Your task to perform on an android device: open app "Fetch Rewards" (install if not already installed) Image 0: 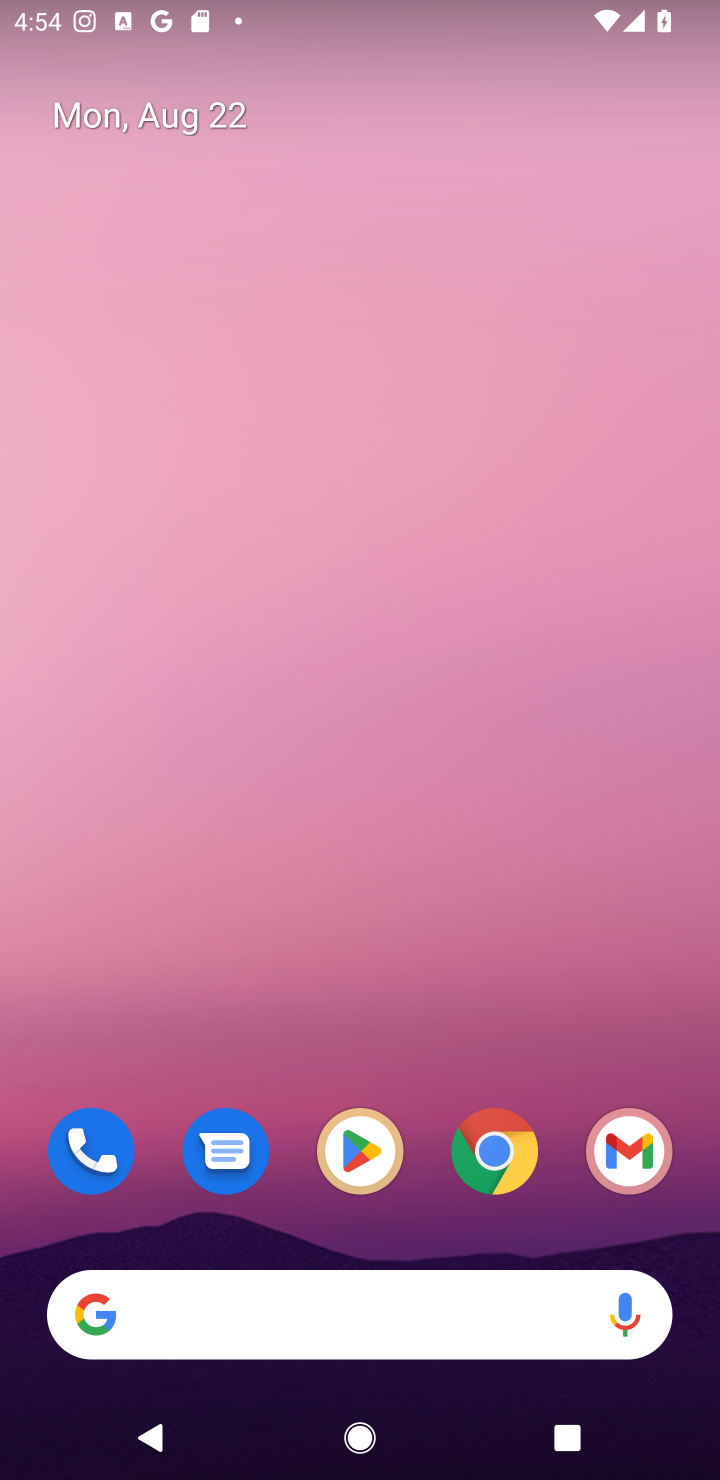
Step 0: press home button
Your task to perform on an android device: open app "Fetch Rewards" (install if not already installed) Image 1: 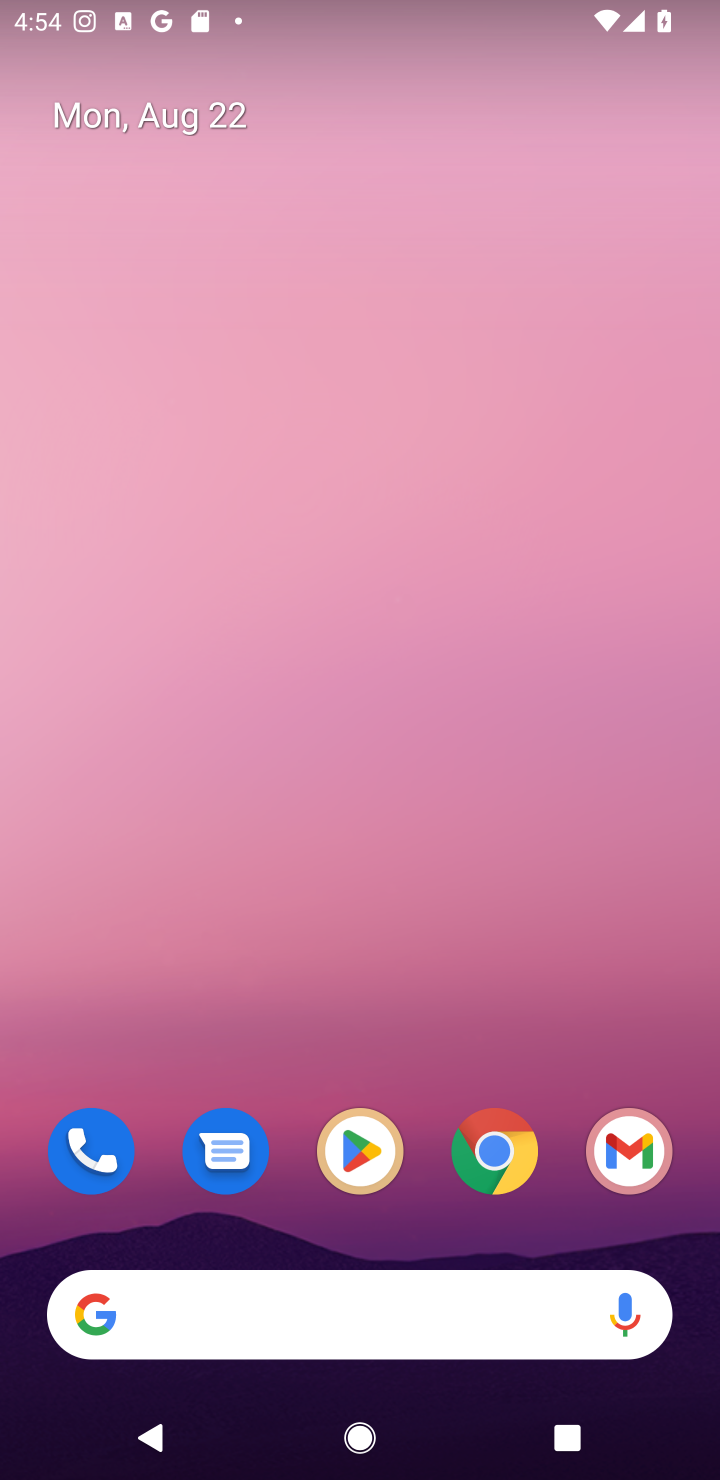
Step 1: click (350, 1142)
Your task to perform on an android device: open app "Fetch Rewards" (install if not already installed) Image 2: 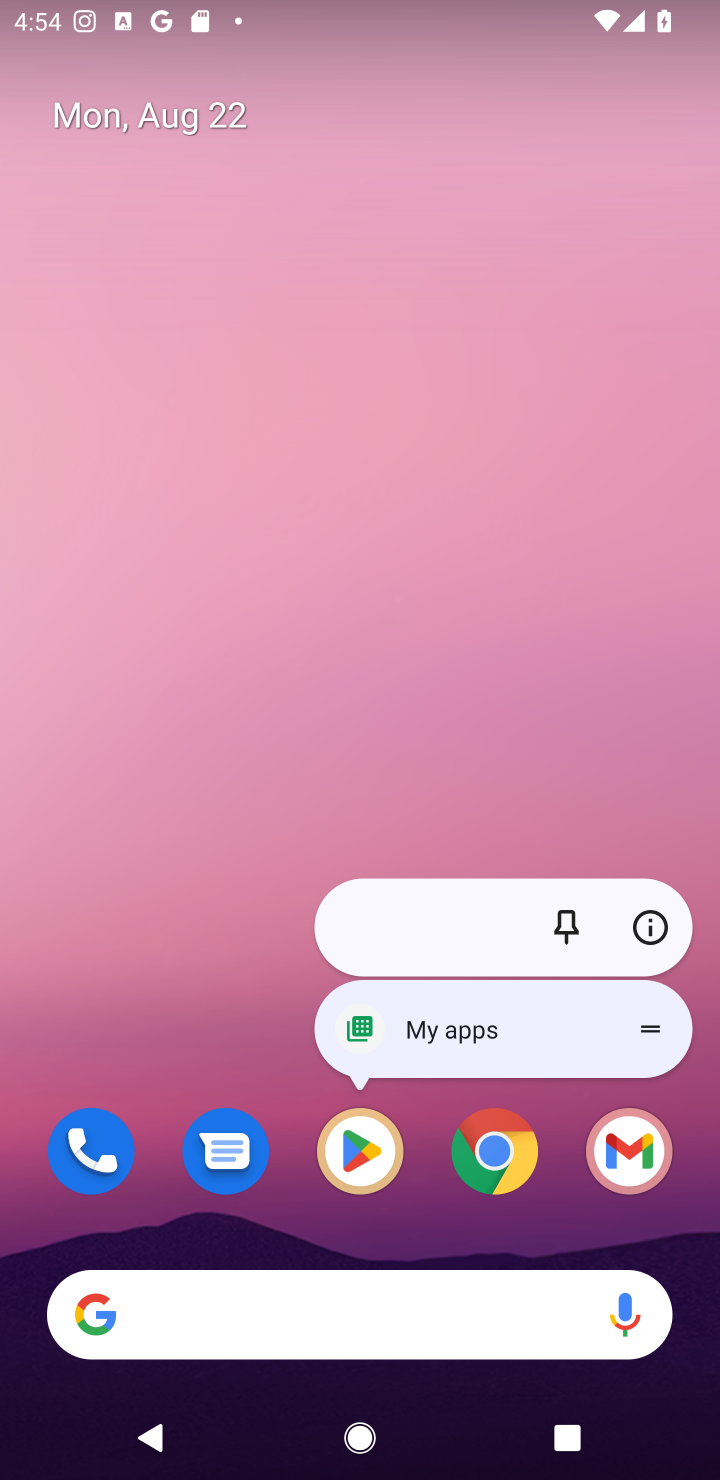
Step 2: click (351, 1149)
Your task to perform on an android device: open app "Fetch Rewards" (install if not already installed) Image 3: 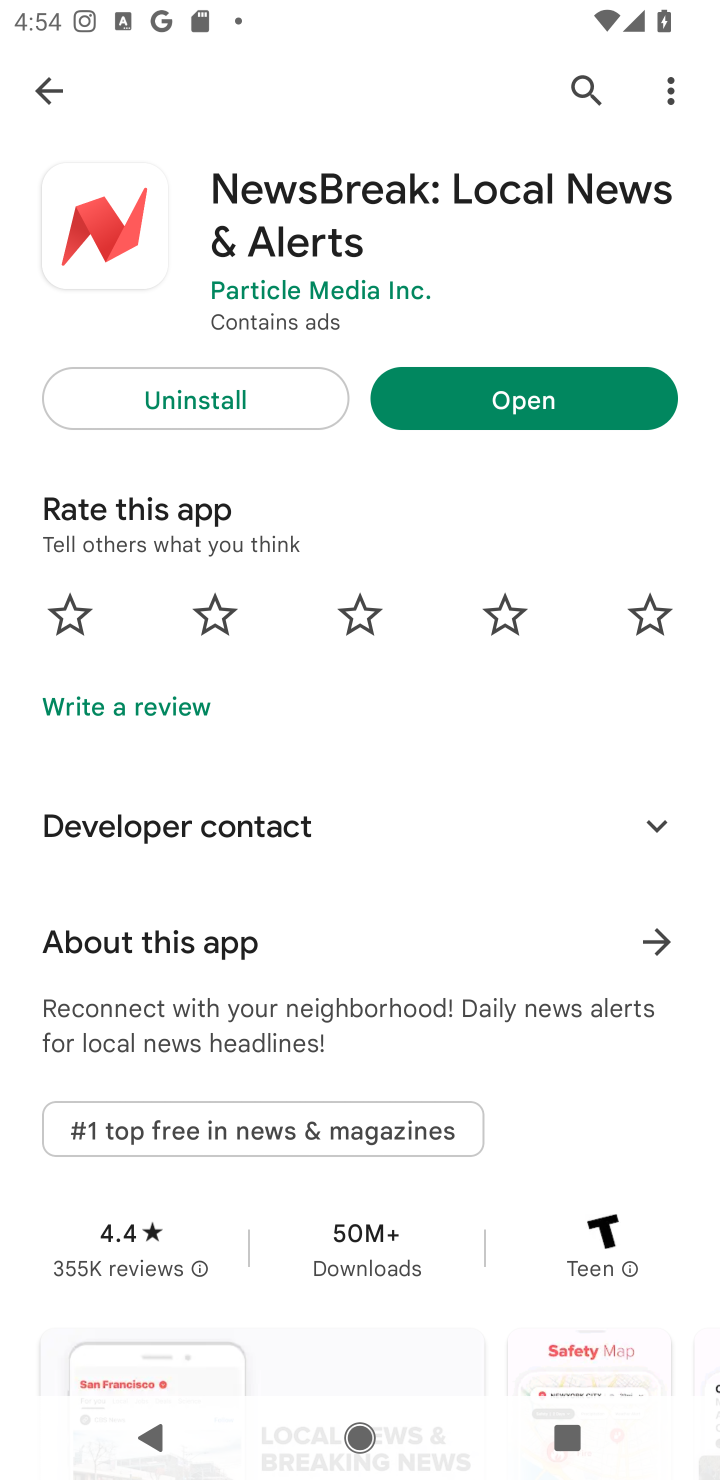
Step 3: click (577, 73)
Your task to perform on an android device: open app "Fetch Rewards" (install if not already installed) Image 4: 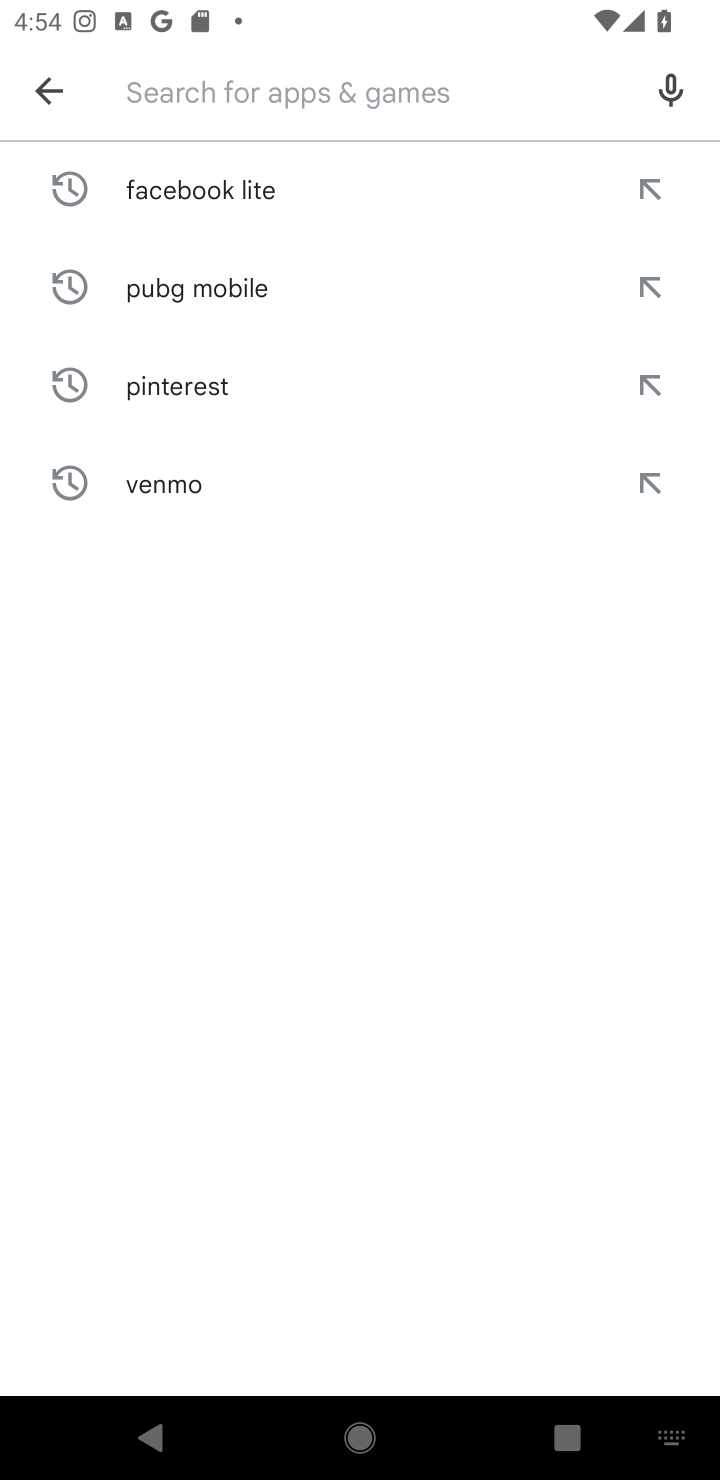
Step 4: type "Fetch Rewards"
Your task to perform on an android device: open app "Fetch Rewards" (install if not already installed) Image 5: 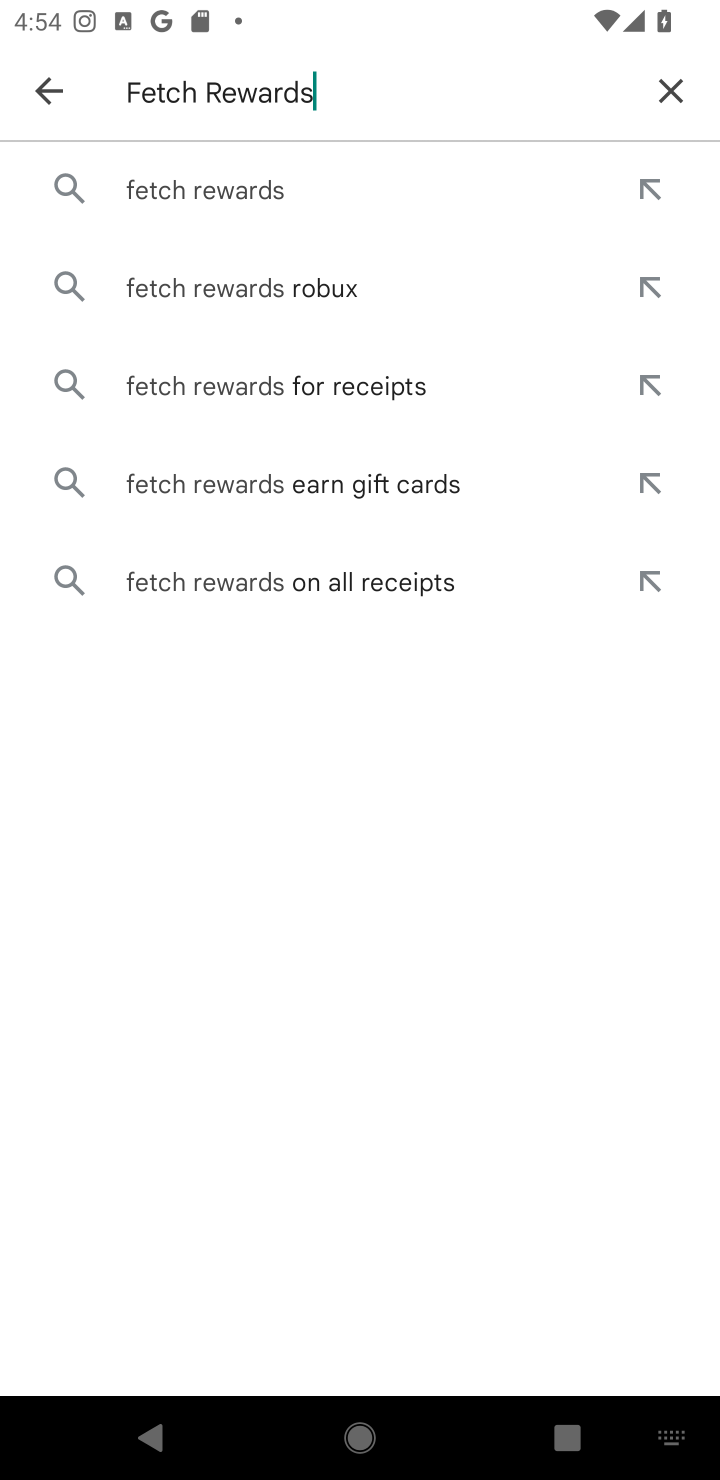
Step 5: click (212, 174)
Your task to perform on an android device: open app "Fetch Rewards" (install if not already installed) Image 6: 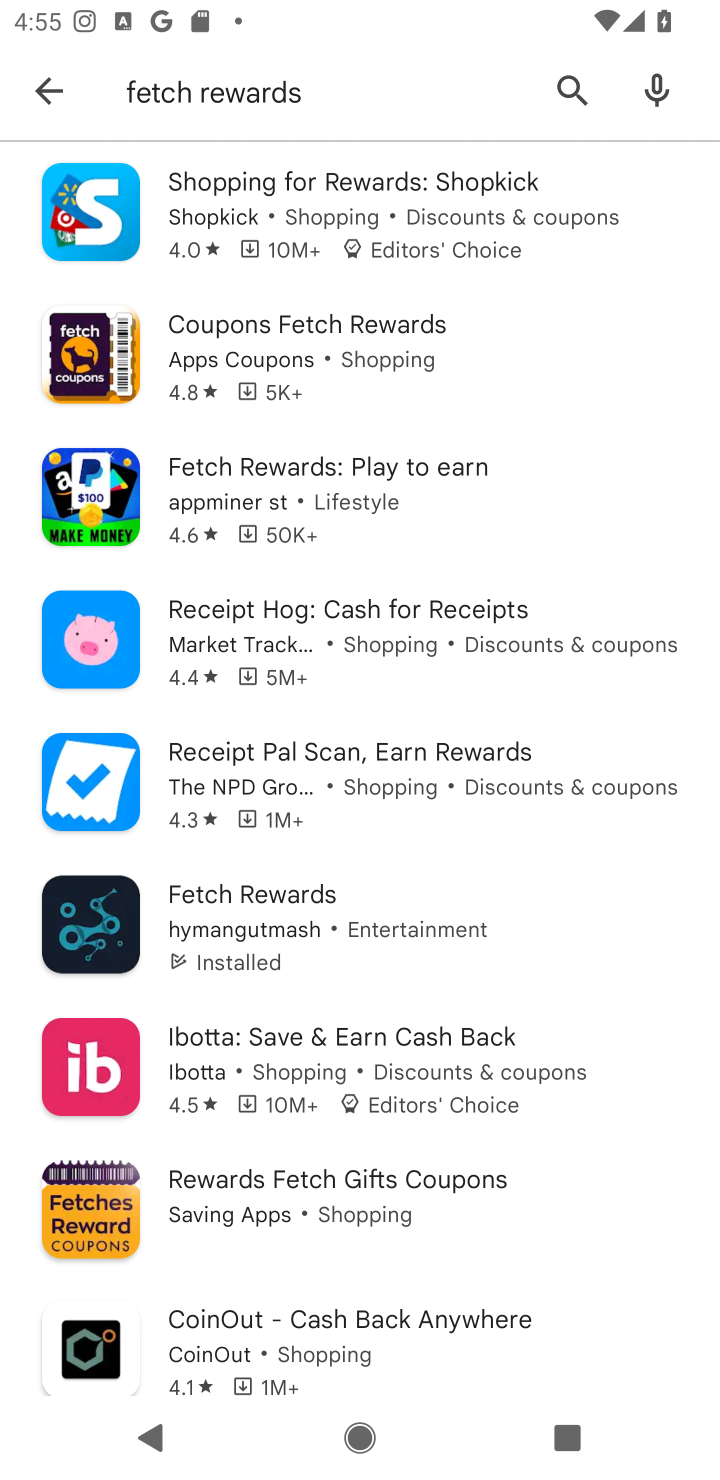
Step 6: click (220, 927)
Your task to perform on an android device: open app "Fetch Rewards" (install if not already installed) Image 7: 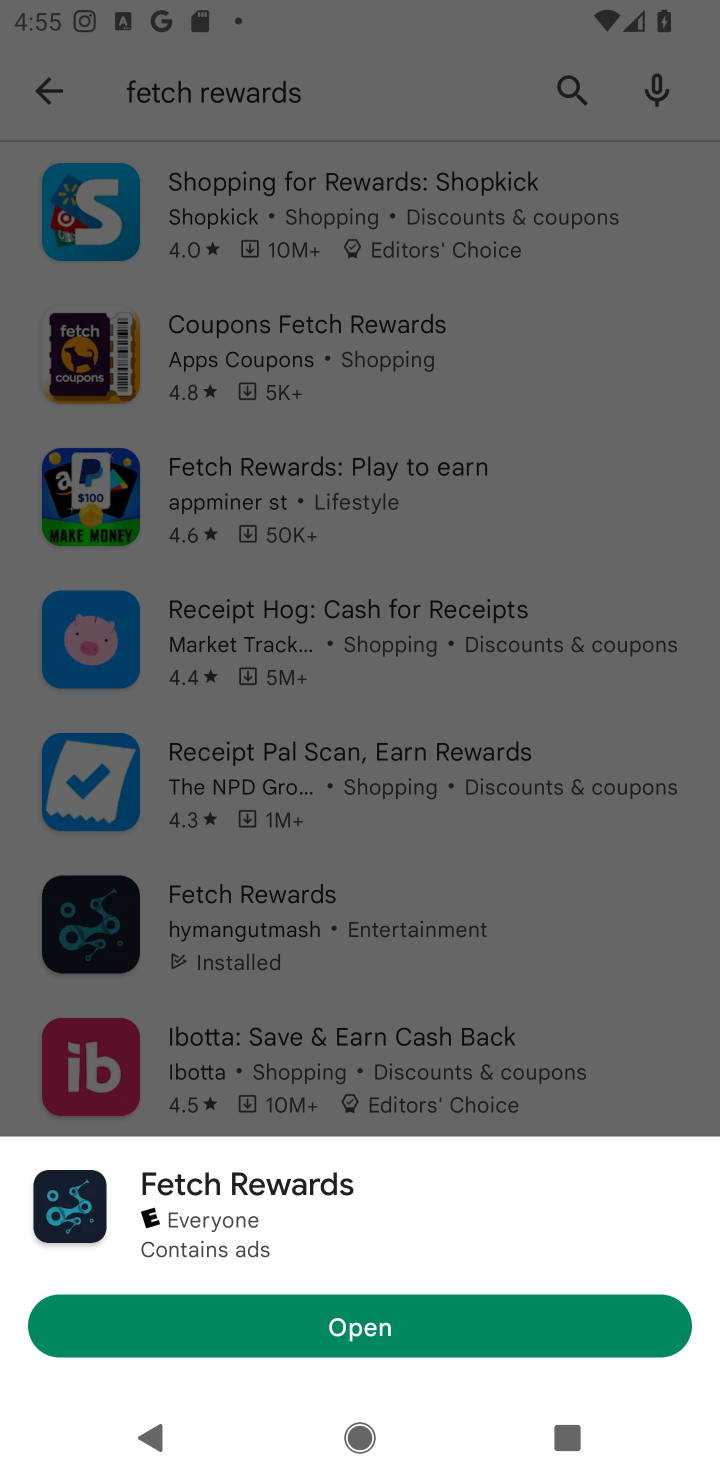
Step 7: click (388, 1326)
Your task to perform on an android device: open app "Fetch Rewards" (install if not already installed) Image 8: 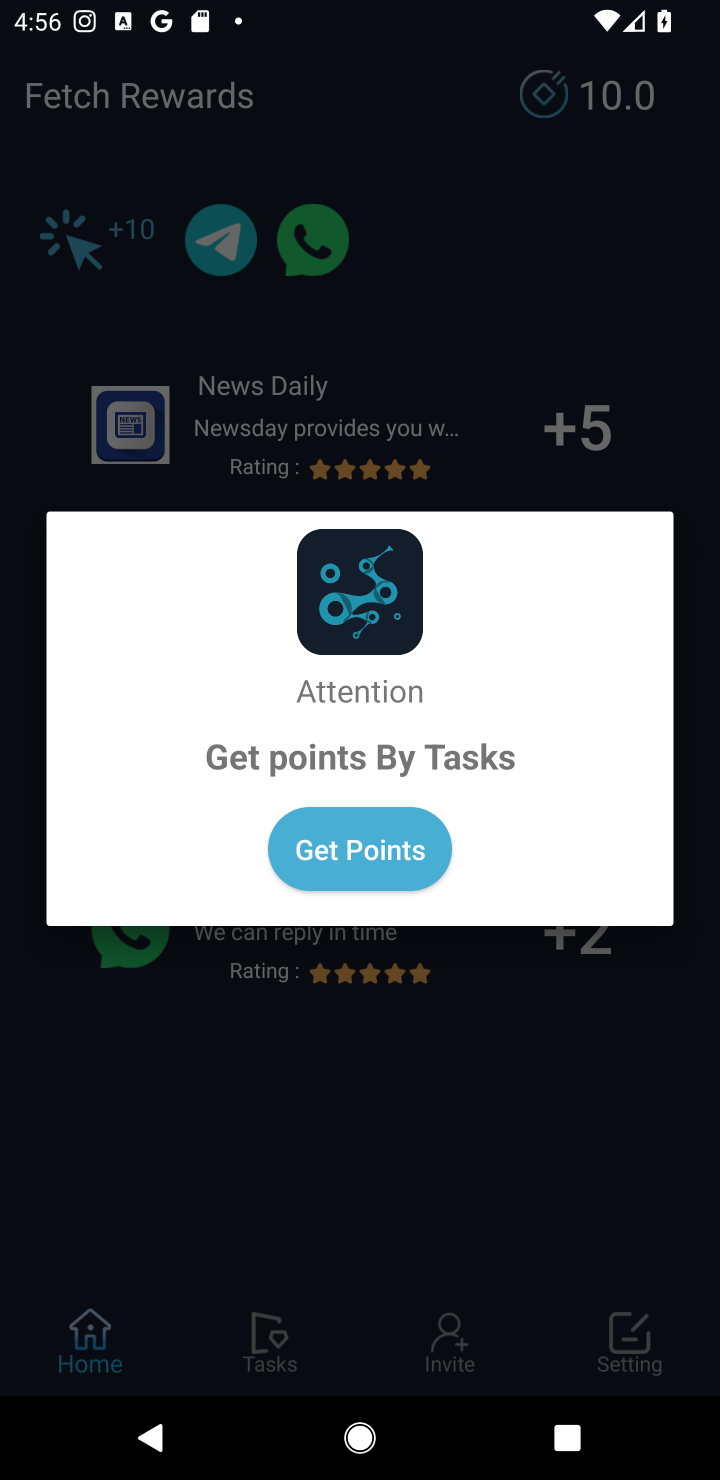
Step 8: task complete